Your task to perform on an android device: Open the settings Image 0: 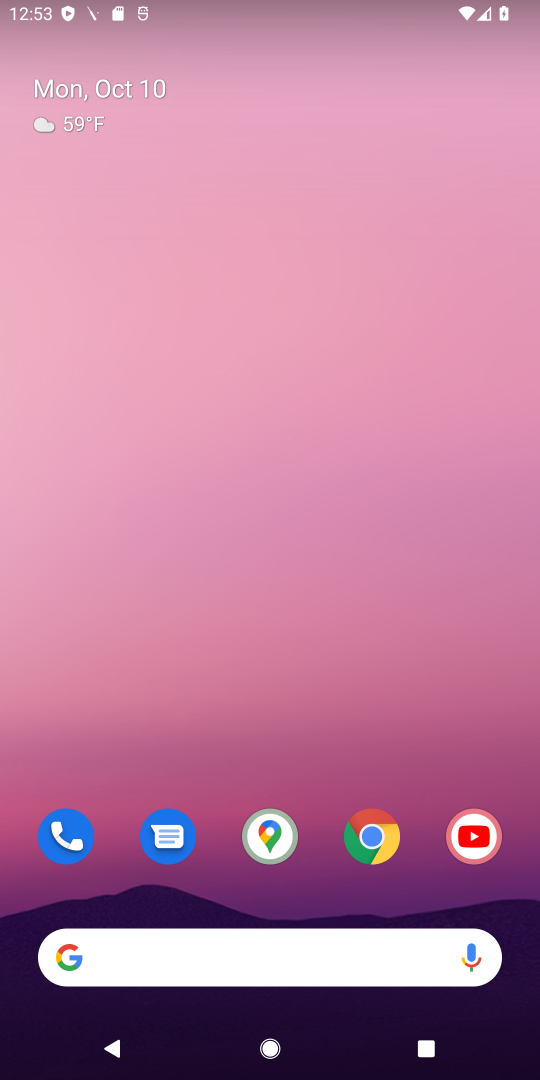
Step 0: drag from (327, 772) to (371, 129)
Your task to perform on an android device: Open the settings Image 1: 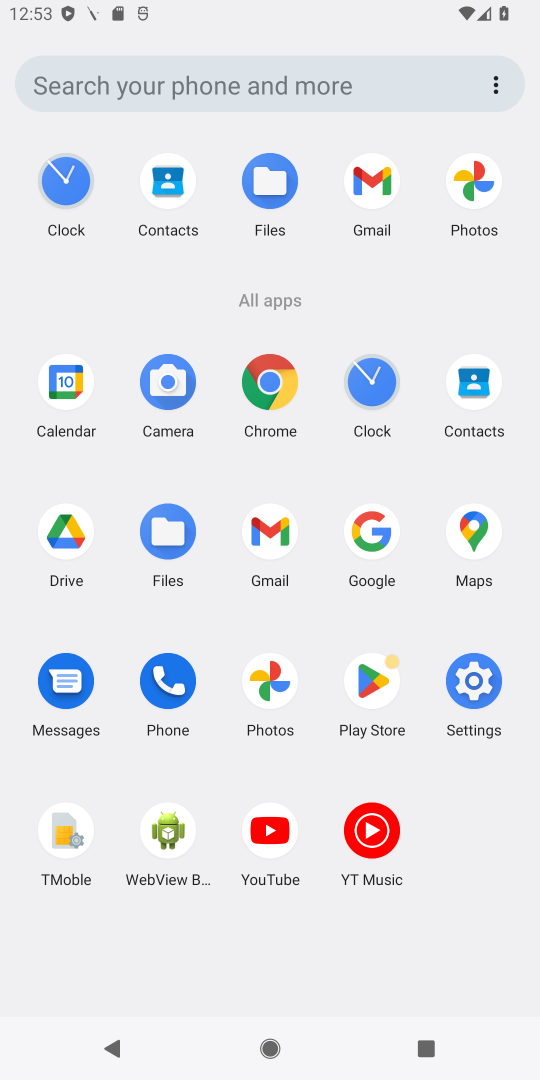
Step 1: click (474, 668)
Your task to perform on an android device: Open the settings Image 2: 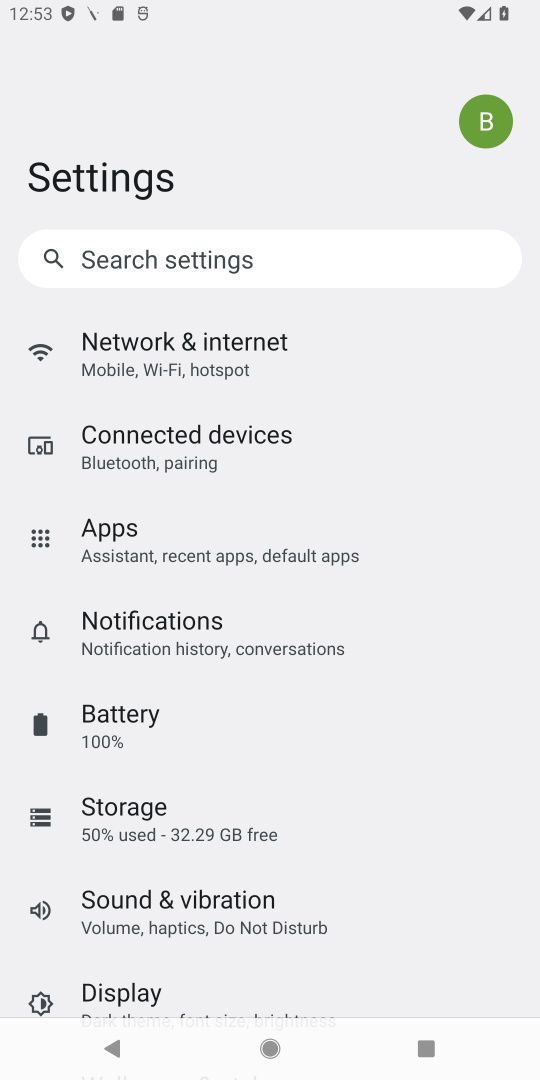
Step 2: task complete